Your task to perform on an android device: Show me recent news Image 0: 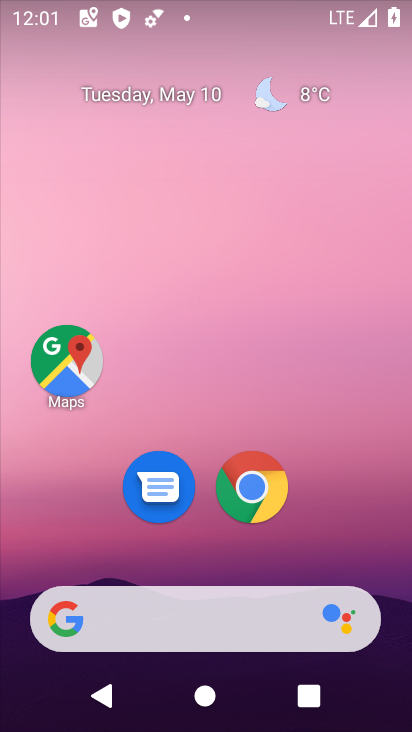
Step 0: press home button
Your task to perform on an android device: Show me recent news Image 1: 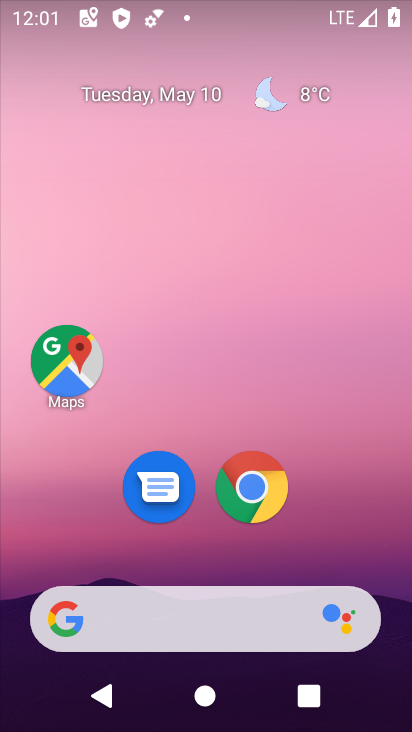
Step 1: task complete